Your task to perform on an android device: Open display settings Image 0: 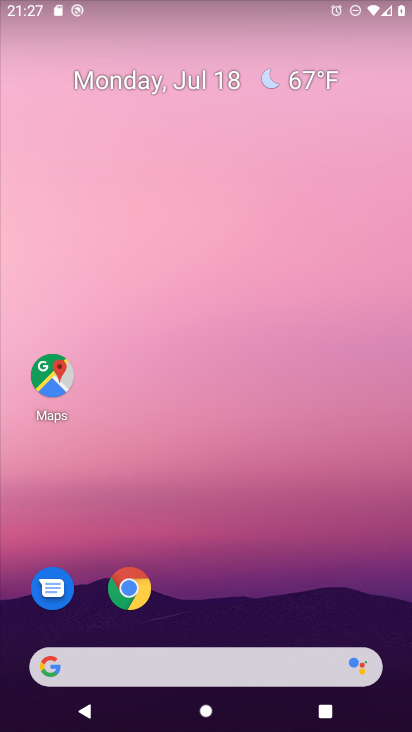
Step 0: drag from (399, 620) to (364, 168)
Your task to perform on an android device: Open display settings Image 1: 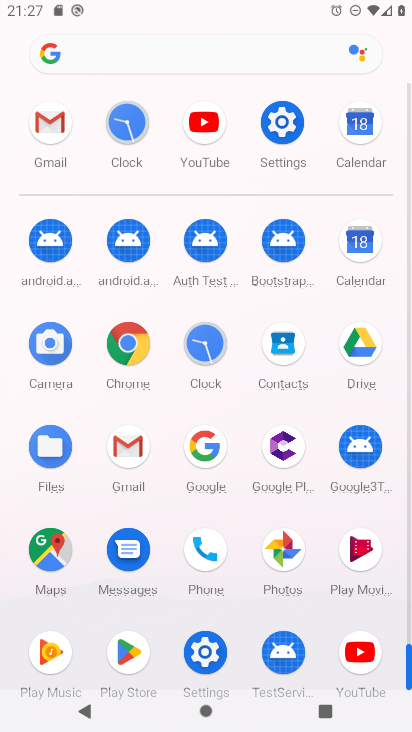
Step 1: click (203, 654)
Your task to perform on an android device: Open display settings Image 2: 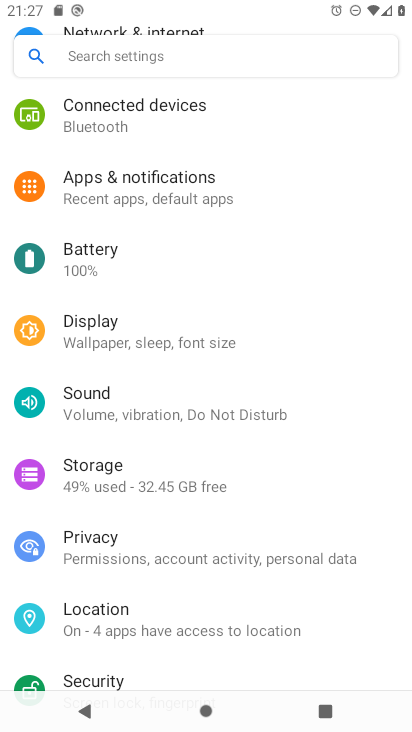
Step 2: click (92, 327)
Your task to perform on an android device: Open display settings Image 3: 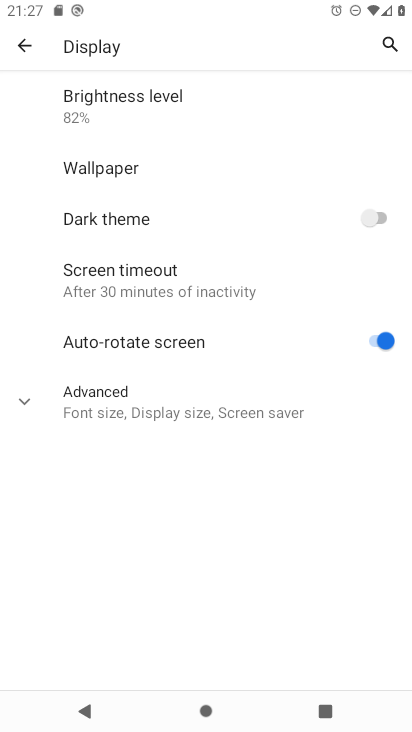
Step 3: click (21, 402)
Your task to perform on an android device: Open display settings Image 4: 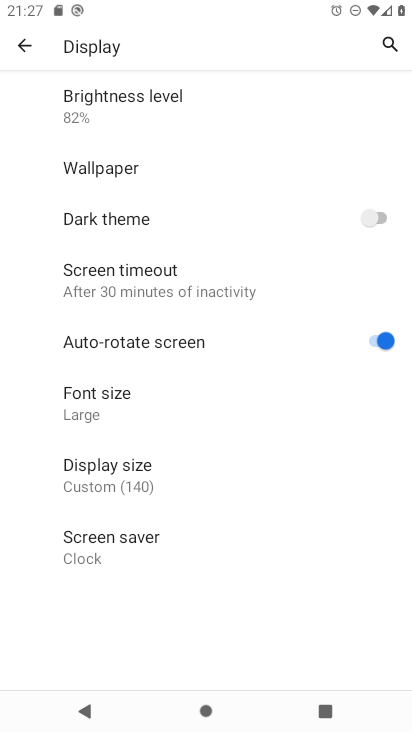
Step 4: task complete